Your task to perform on an android device: What's the news in French Guiana? Image 0: 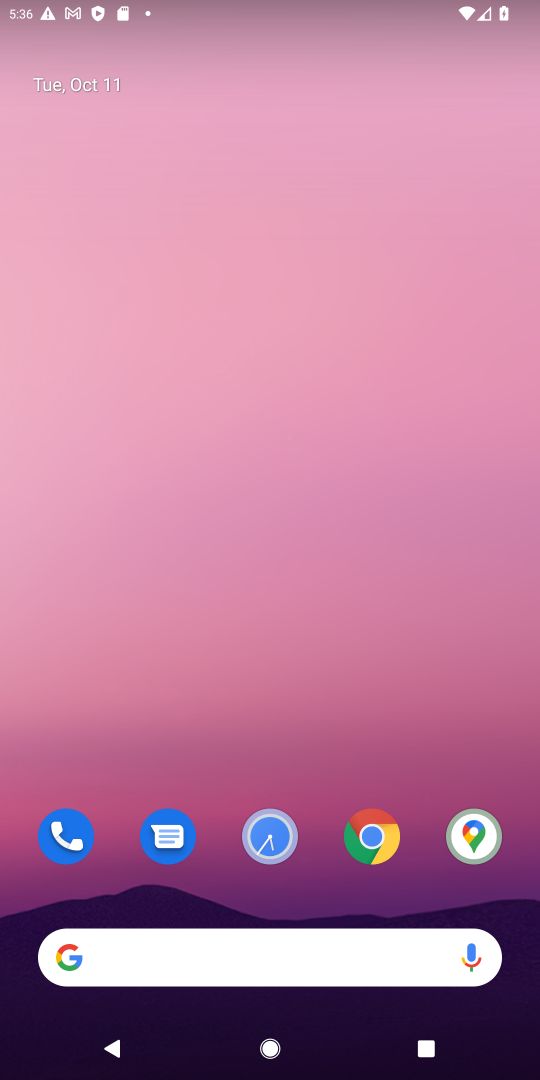
Step 0: click (371, 831)
Your task to perform on an android device: What's the news in French Guiana? Image 1: 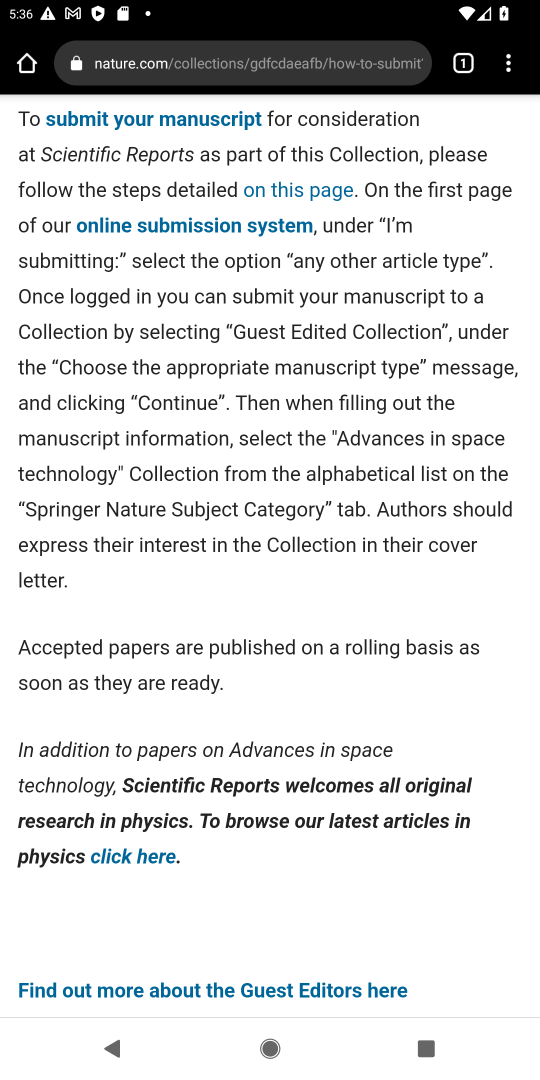
Step 1: click (219, 43)
Your task to perform on an android device: What's the news in French Guiana? Image 2: 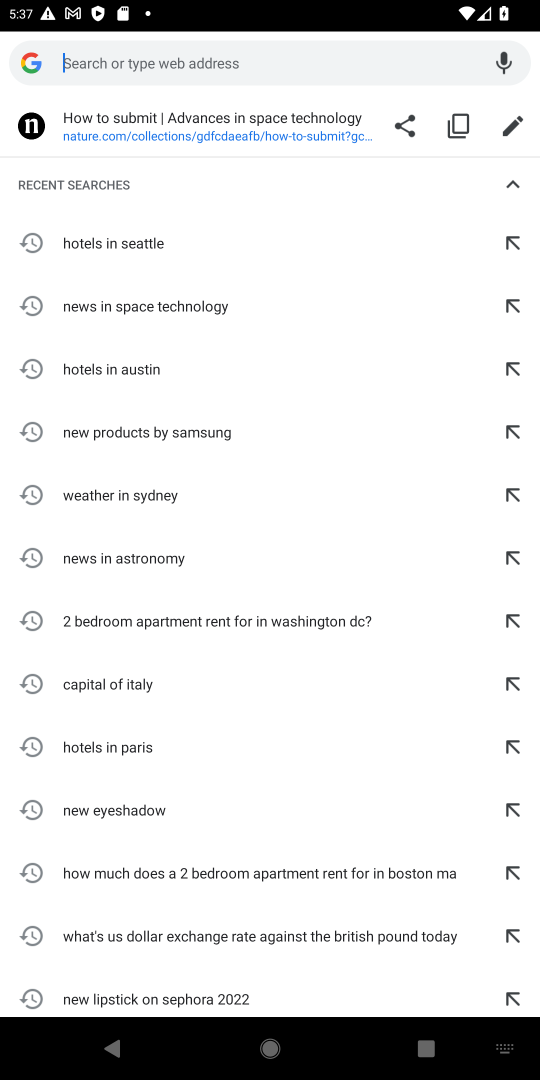
Step 2: type "news in french guiana"
Your task to perform on an android device: What's the news in French Guiana? Image 3: 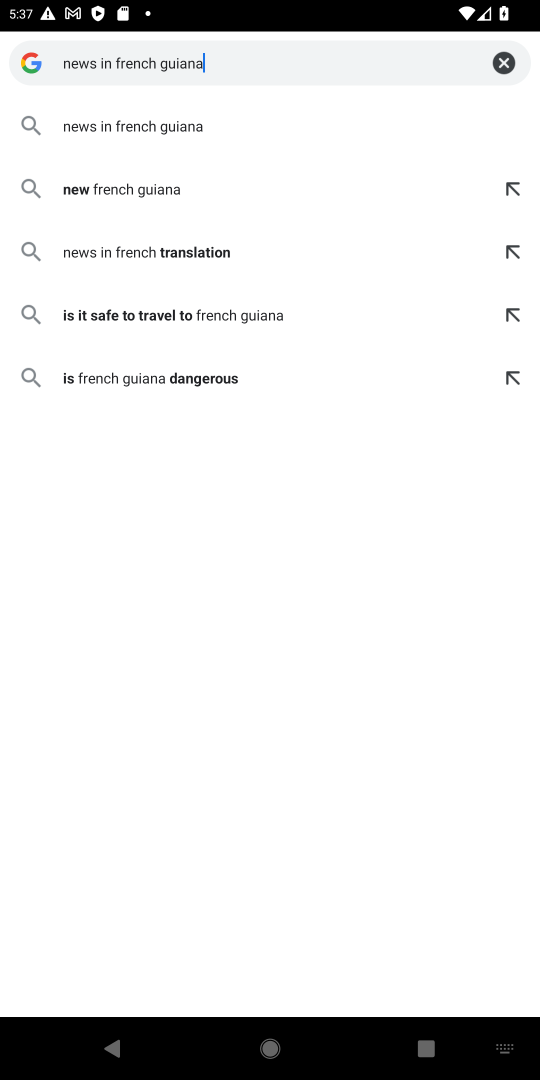
Step 3: click (110, 131)
Your task to perform on an android device: What's the news in French Guiana? Image 4: 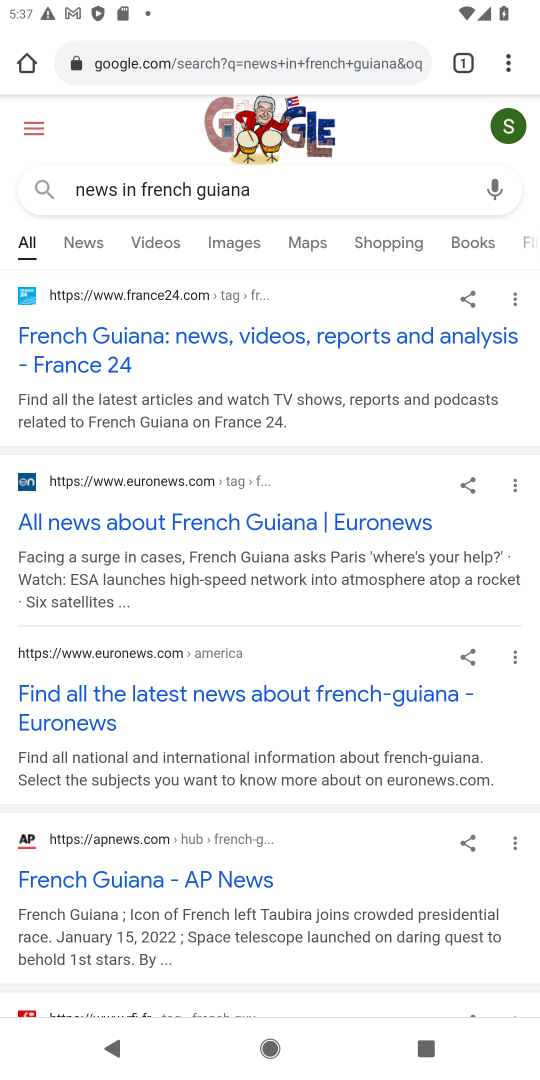
Step 4: click (124, 343)
Your task to perform on an android device: What's the news in French Guiana? Image 5: 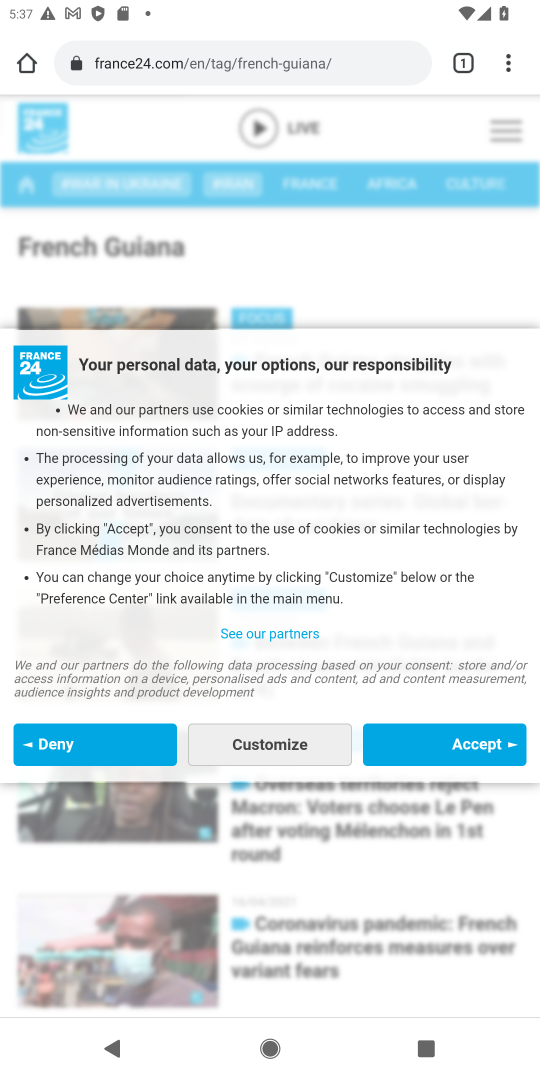
Step 5: click (476, 749)
Your task to perform on an android device: What's the news in French Guiana? Image 6: 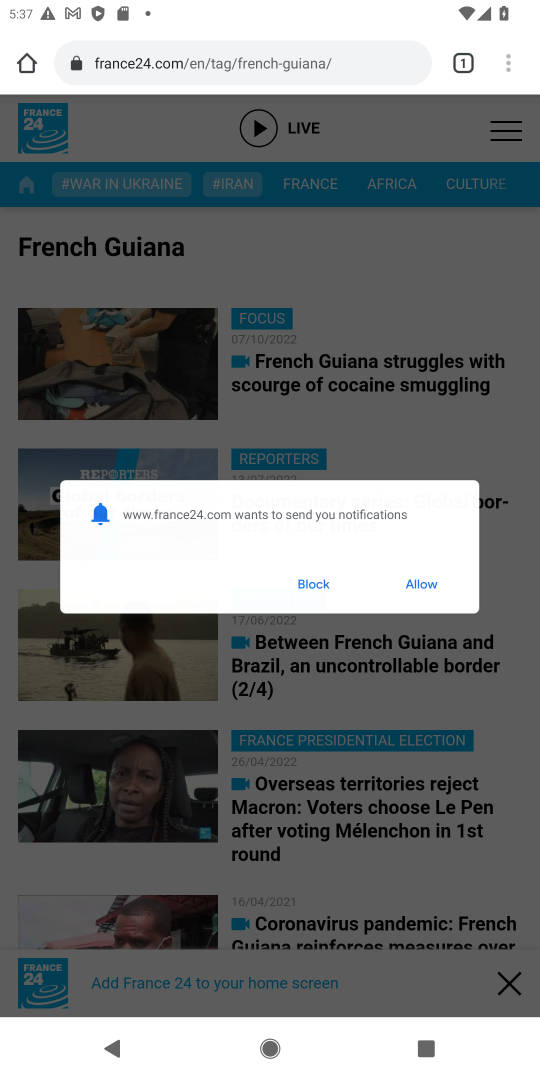
Step 6: click (476, 749)
Your task to perform on an android device: What's the news in French Guiana? Image 7: 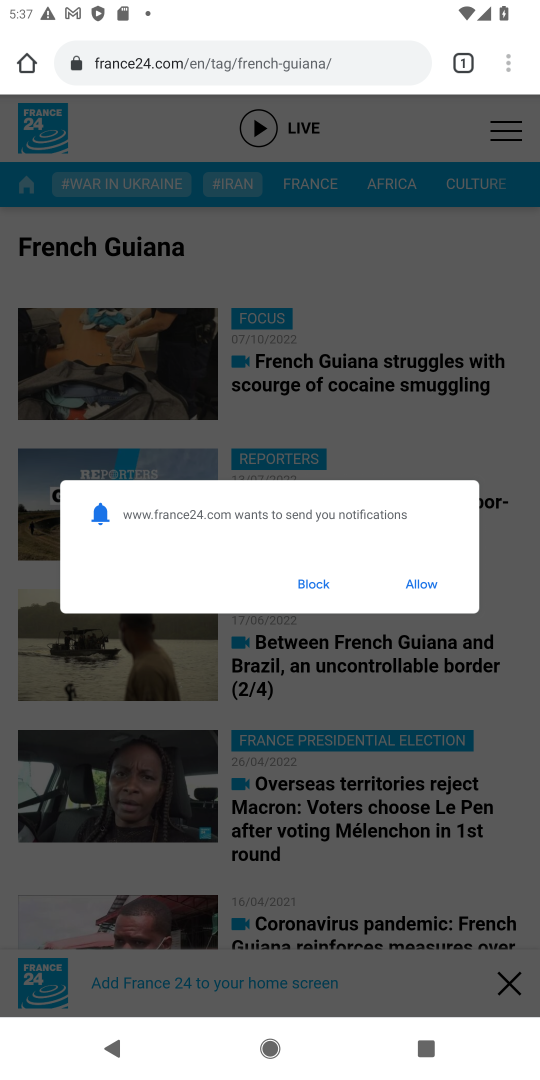
Step 7: click (303, 581)
Your task to perform on an android device: What's the news in French Guiana? Image 8: 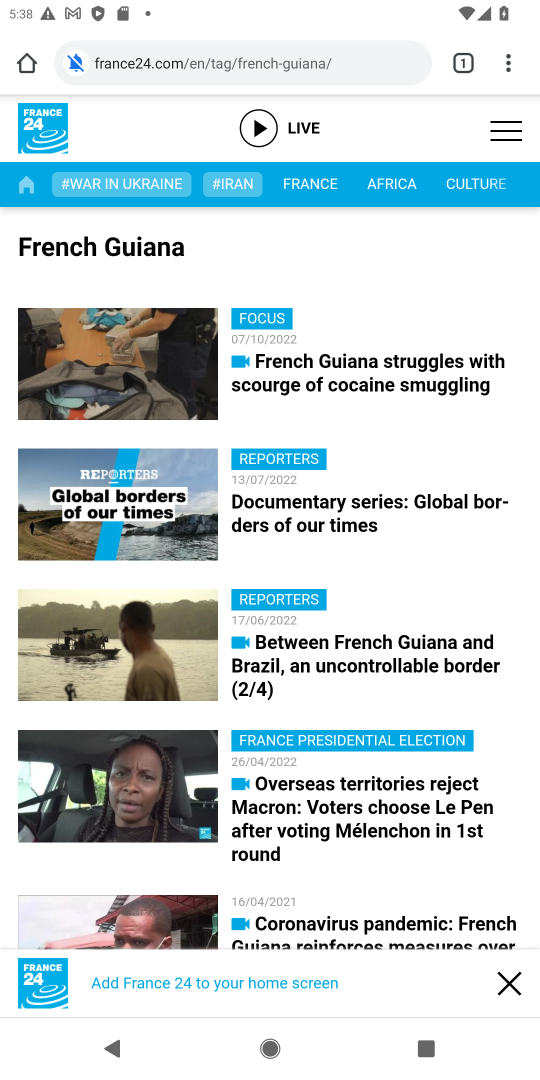
Step 8: click (509, 976)
Your task to perform on an android device: What's the news in French Guiana? Image 9: 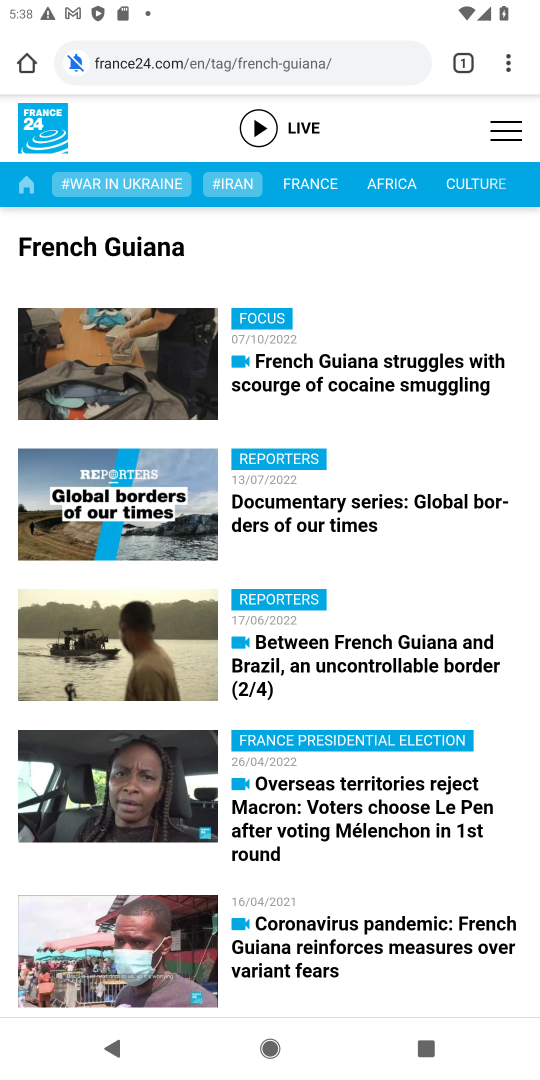
Step 9: click (361, 356)
Your task to perform on an android device: What's the news in French Guiana? Image 10: 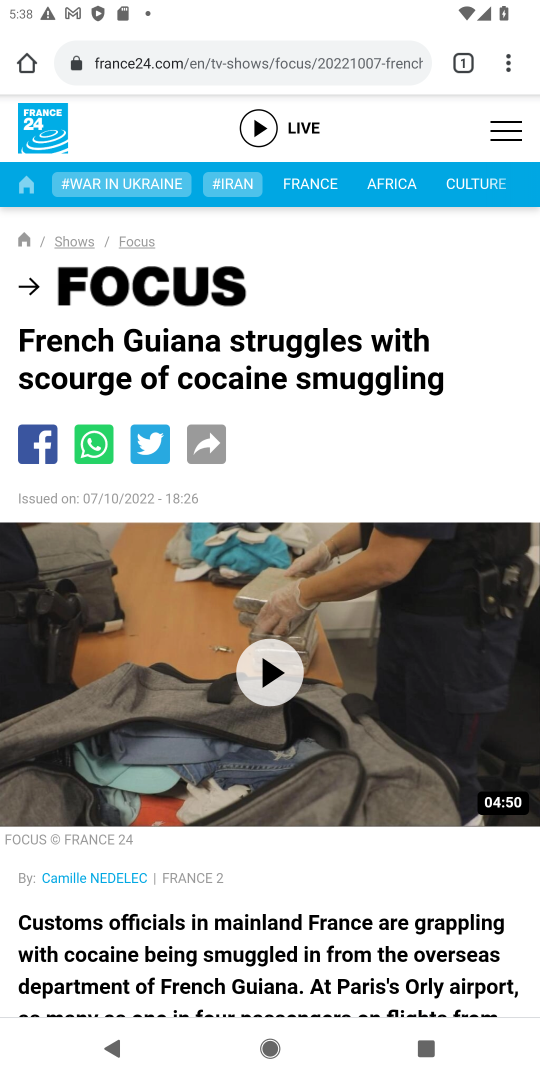
Step 10: task complete